Your task to perform on an android device: open app "McDonald's" Image 0: 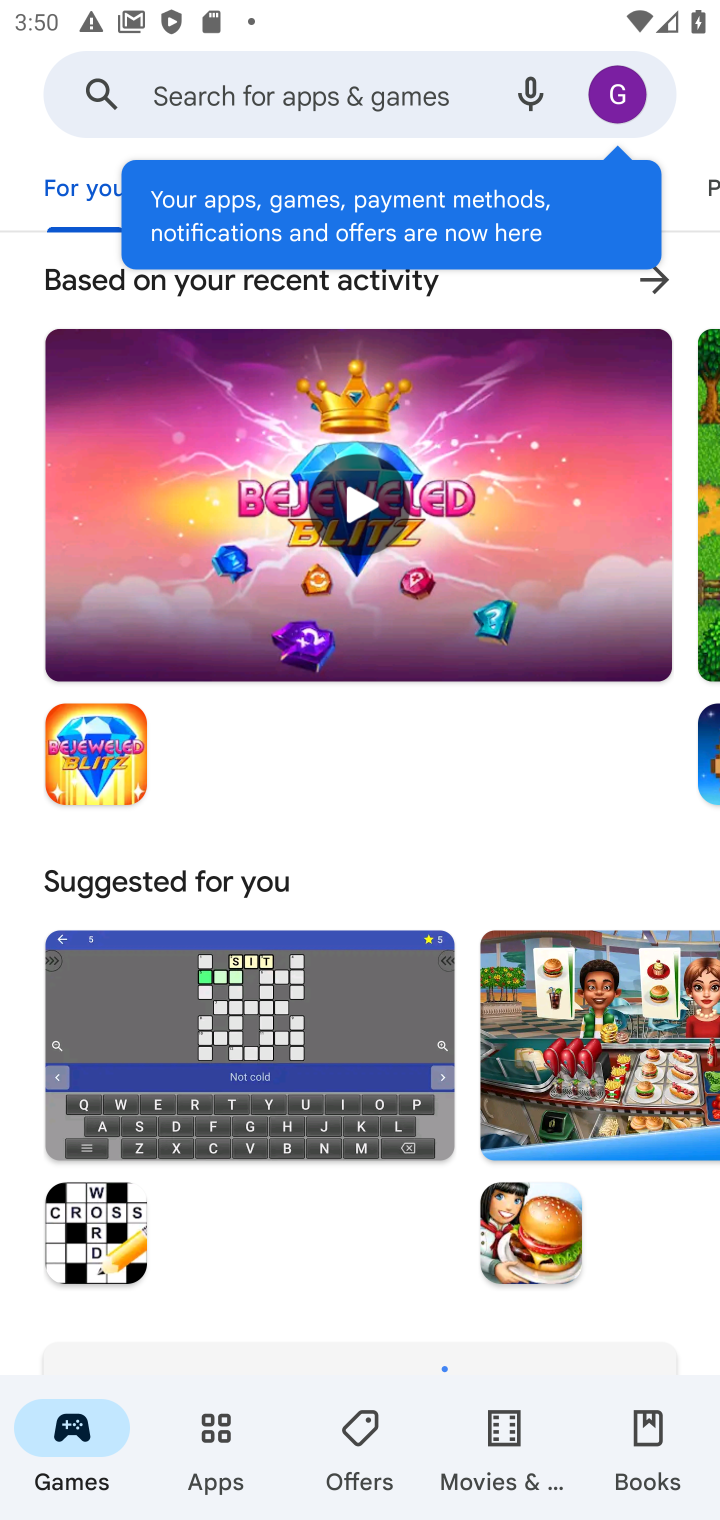
Step 0: click (247, 95)
Your task to perform on an android device: open app "McDonald's" Image 1: 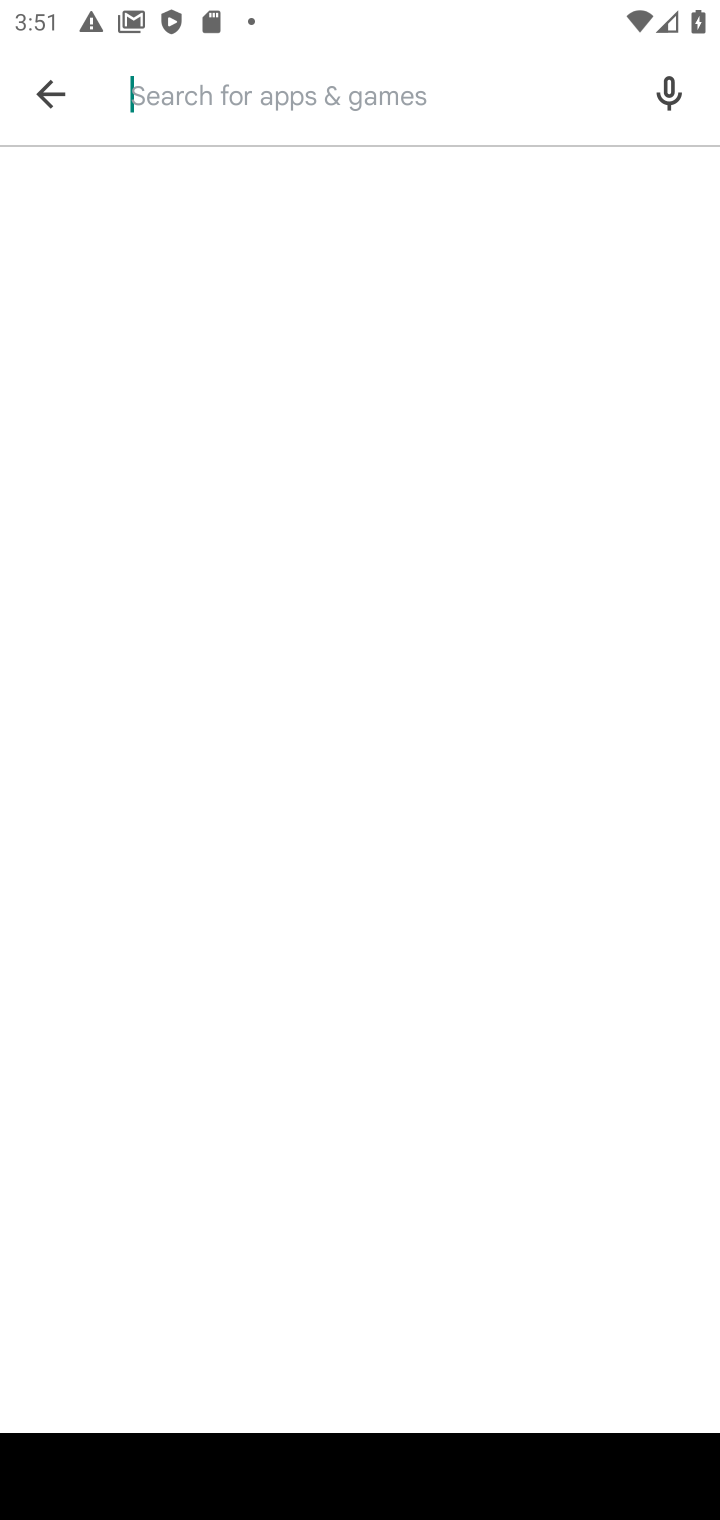
Step 1: type "McDonald's"
Your task to perform on an android device: open app "McDonald's" Image 2: 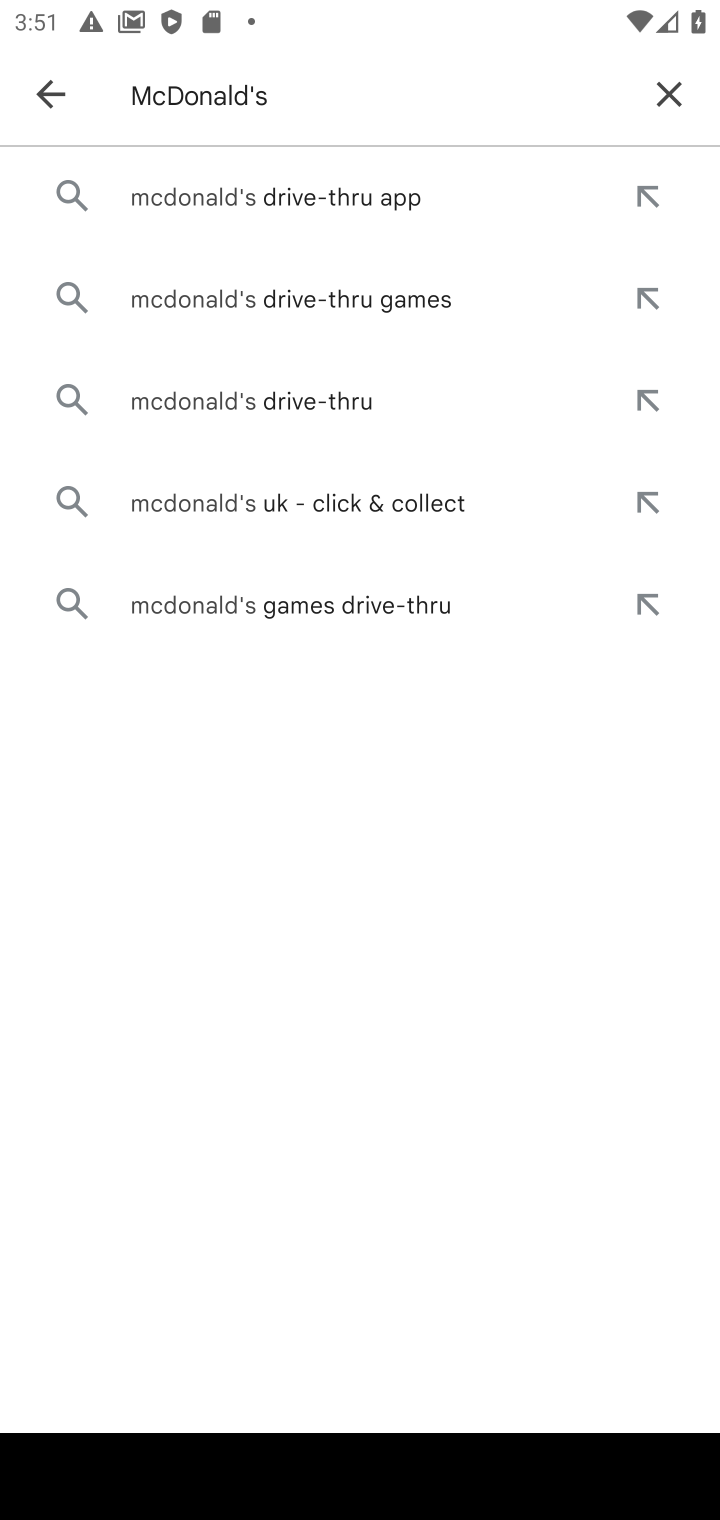
Step 2: press enter
Your task to perform on an android device: open app "McDonald's" Image 3: 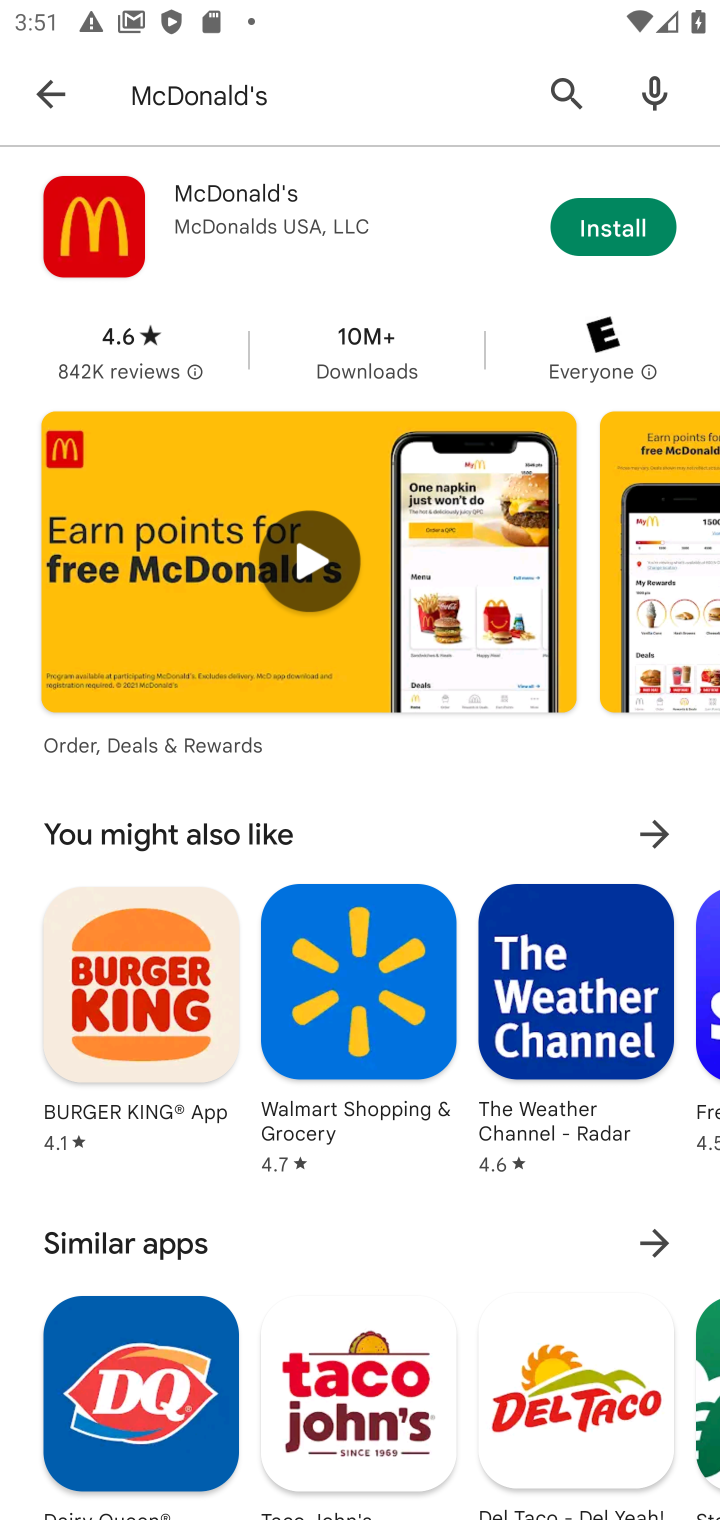
Step 3: task complete